Your task to perform on an android device: check data usage Image 0: 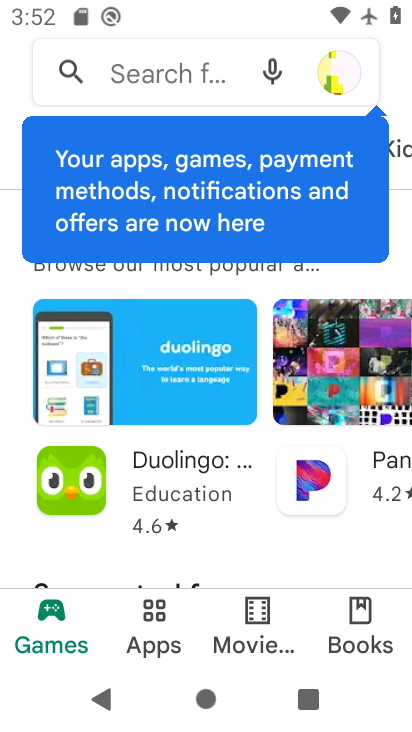
Step 0: press home button
Your task to perform on an android device: check data usage Image 1: 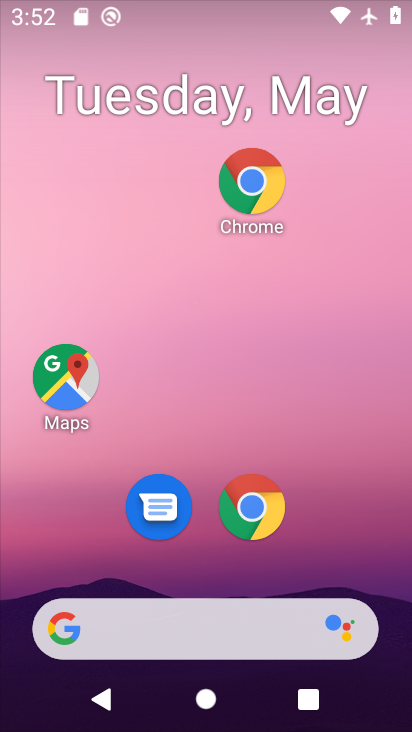
Step 1: drag from (353, 524) to (411, 79)
Your task to perform on an android device: check data usage Image 2: 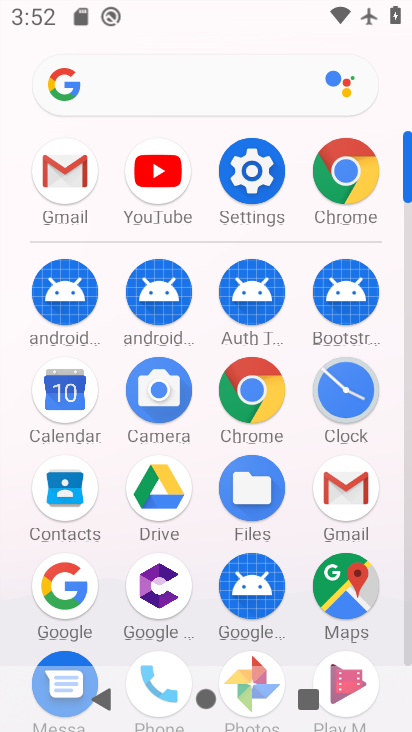
Step 2: click (262, 182)
Your task to perform on an android device: check data usage Image 3: 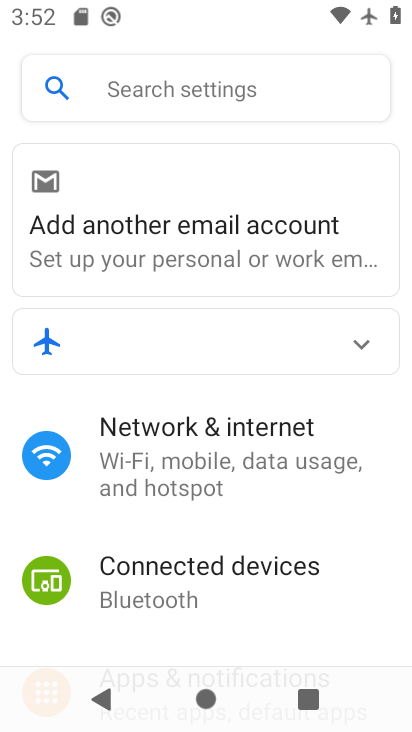
Step 3: drag from (265, 567) to (253, 248)
Your task to perform on an android device: check data usage Image 4: 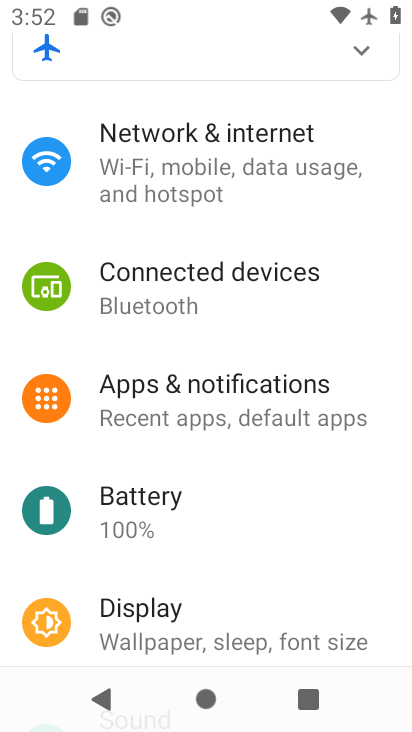
Step 4: click (196, 178)
Your task to perform on an android device: check data usage Image 5: 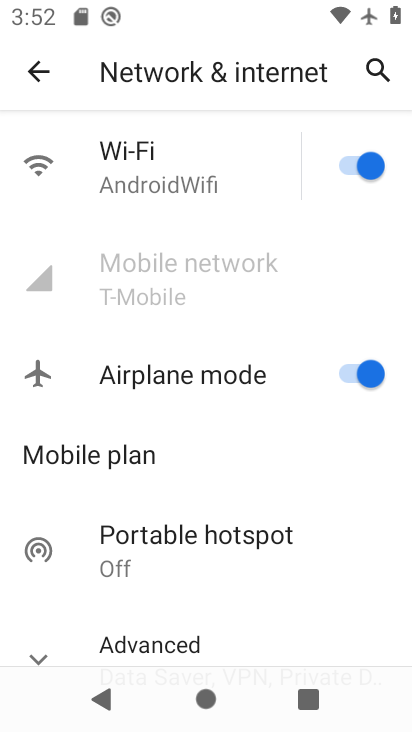
Step 5: task complete